Your task to perform on an android device: Go to network settings Image 0: 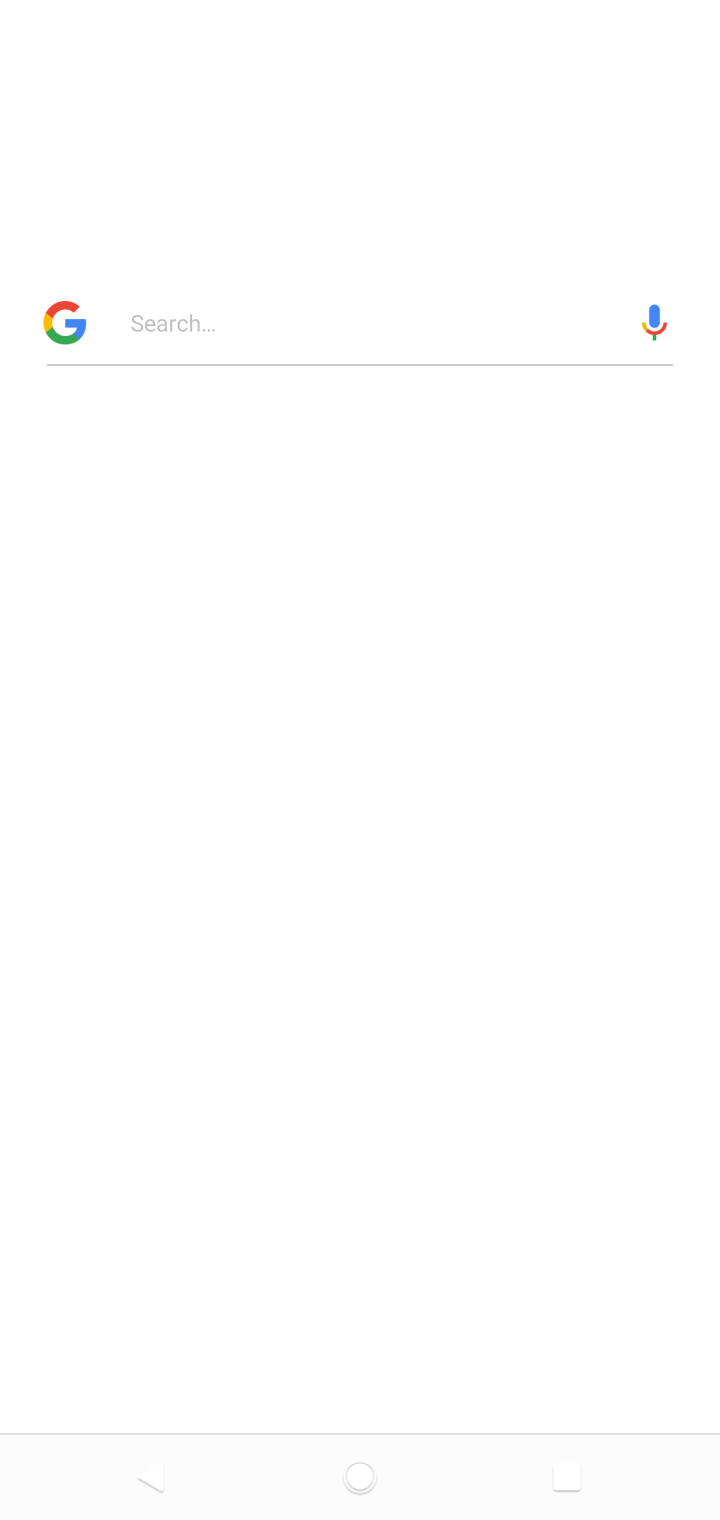
Step 0: press home button
Your task to perform on an android device: Go to network settings Image 1: 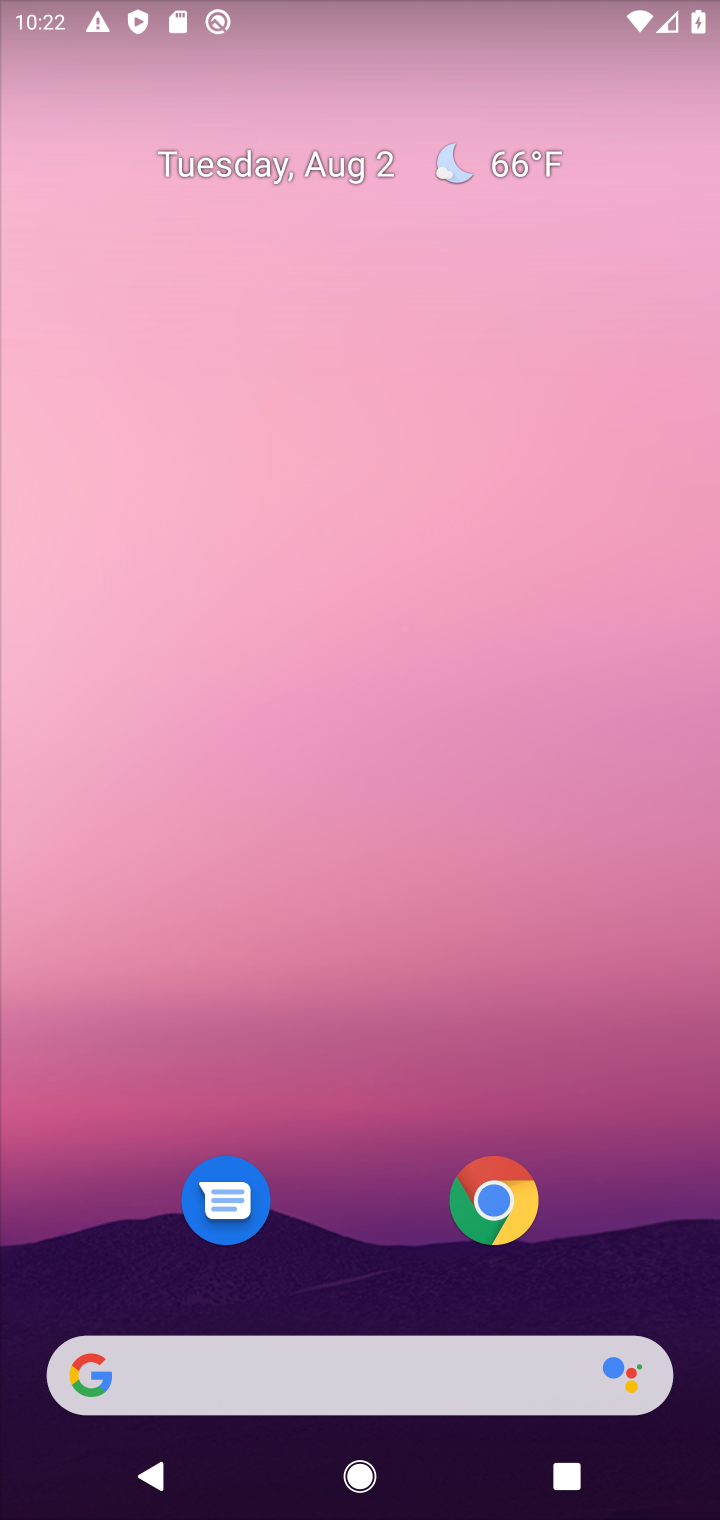
Step 1: drag from (645, 1263) to (621, 230)
Your task to perform on an android device: Go to network settings Image 2: 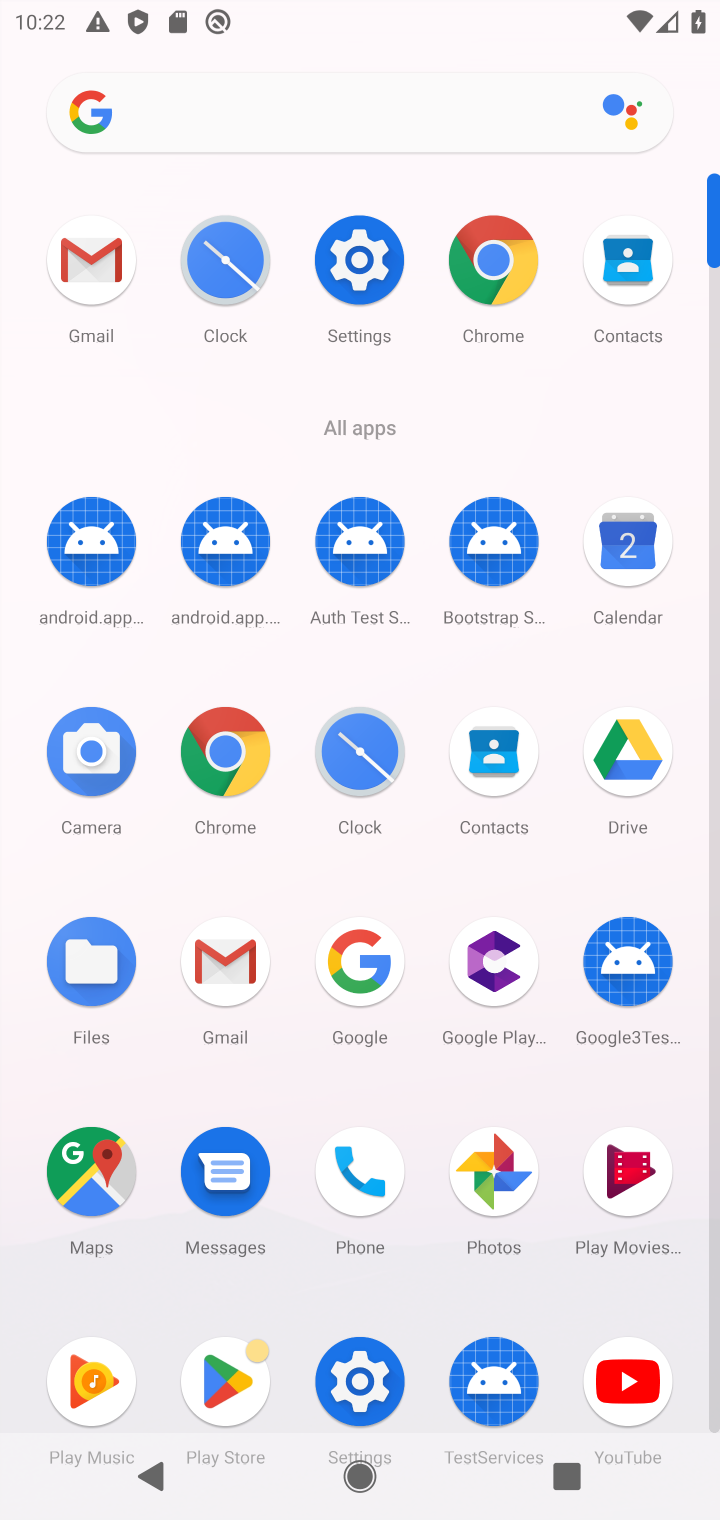
Step 2: click (359, 1377)
Your task to perform on an android device: Go to network settings Image 3: 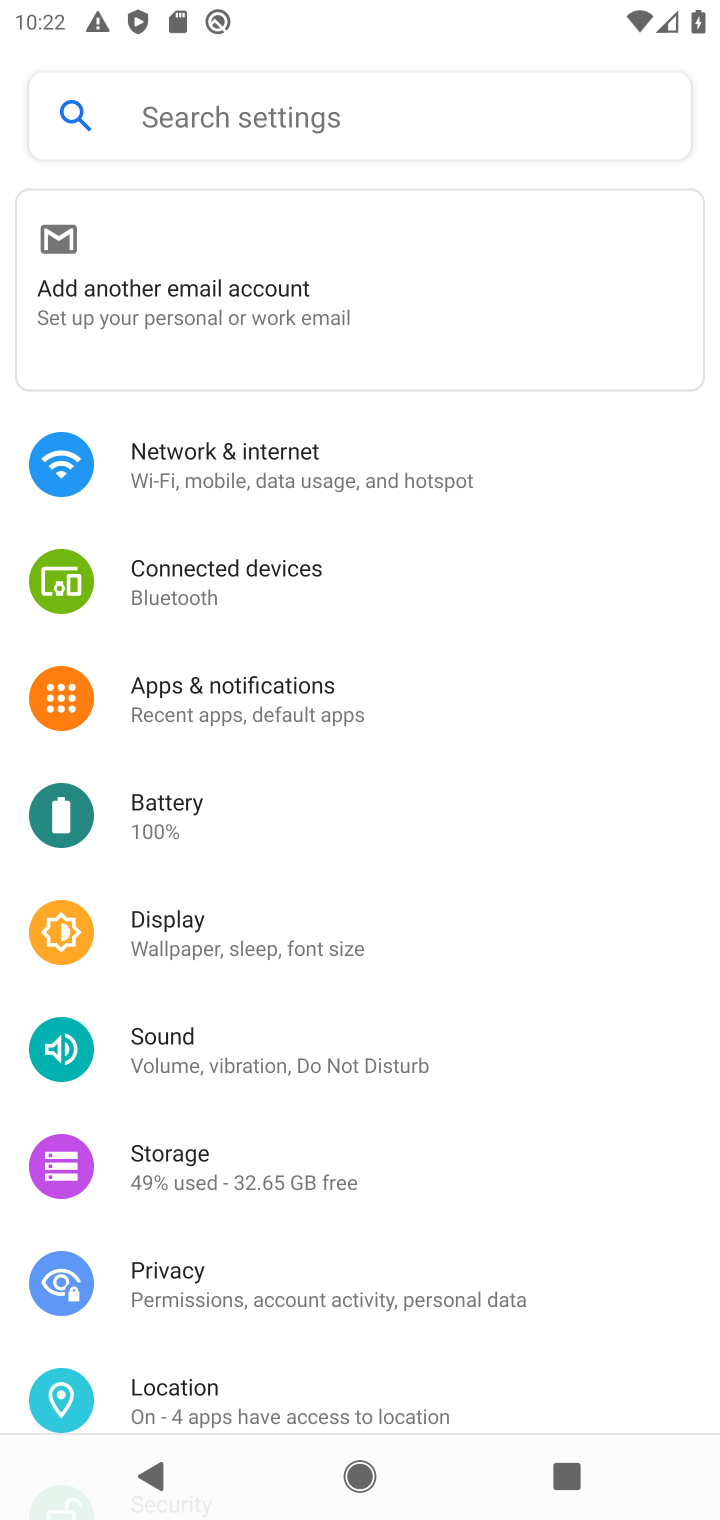
Step 3: click (207, 448)
Your task to perform on an android device: Go to network settings Image 4: 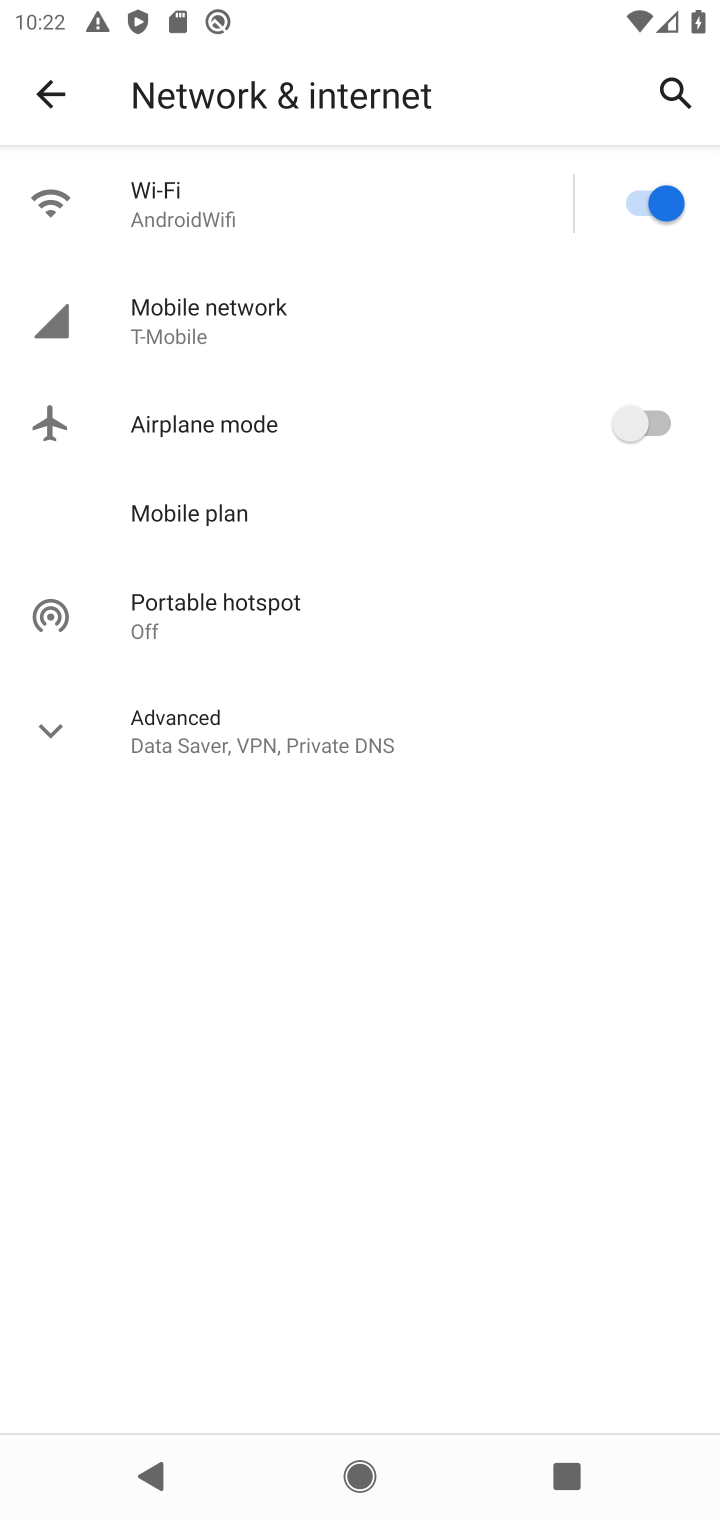
Step 4: click (181, 309)
Your task to perform on an android device: Go to network settings Image 5: 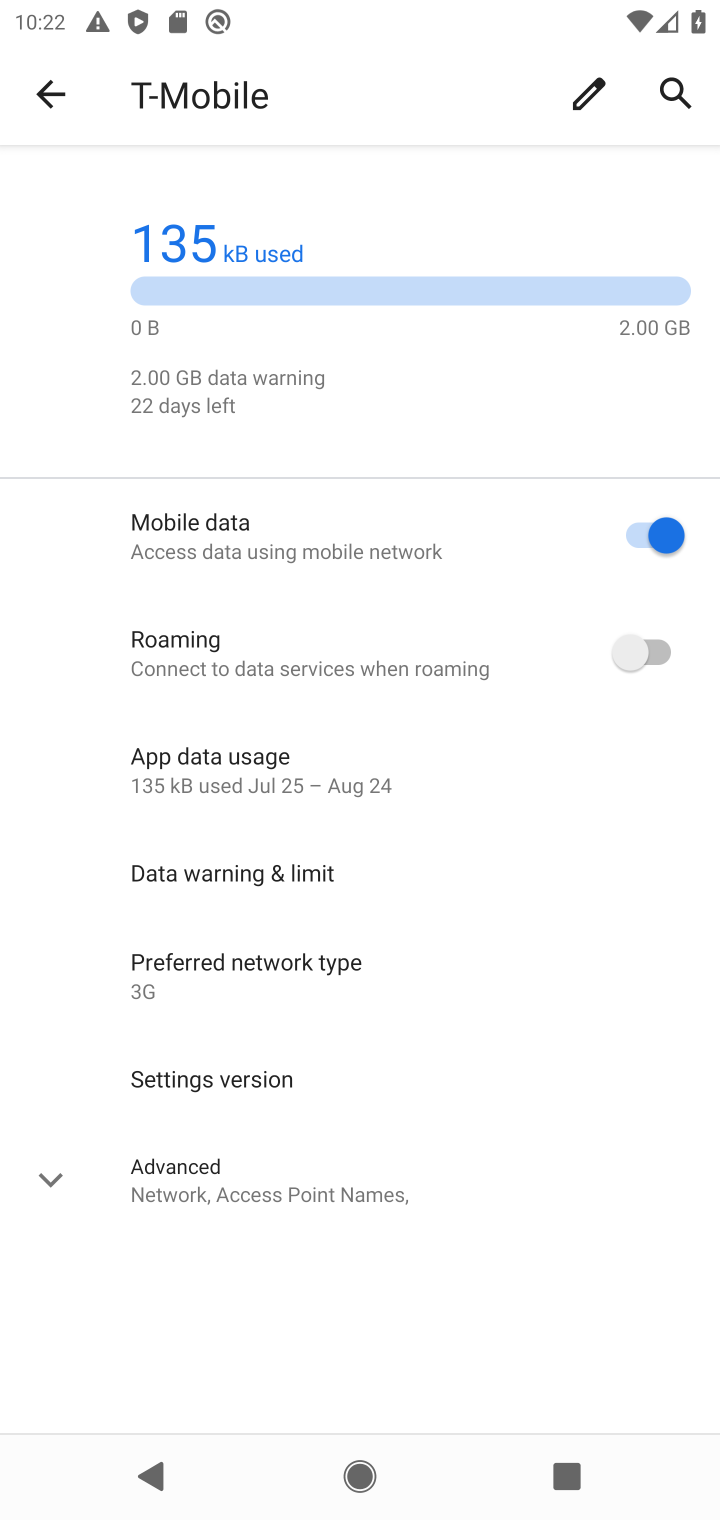
Step 5: task complete